Your task to perform on an android device: Search for vegetarian restaurants on Maps Image 0: 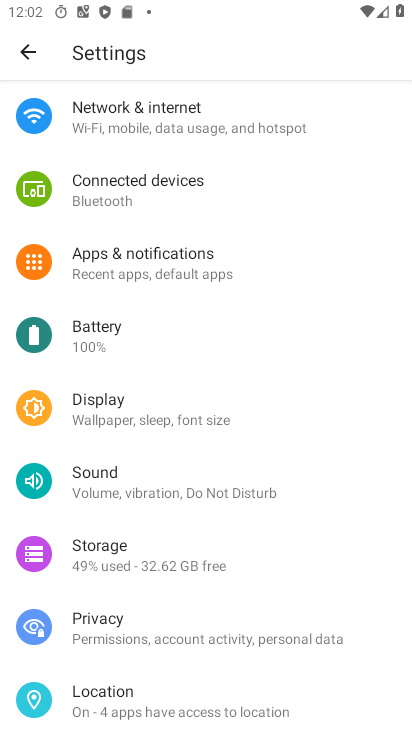
Step 0: press home button
Your task to perform on an android device: Search for vegetarian restaurants on Maps Image 1: 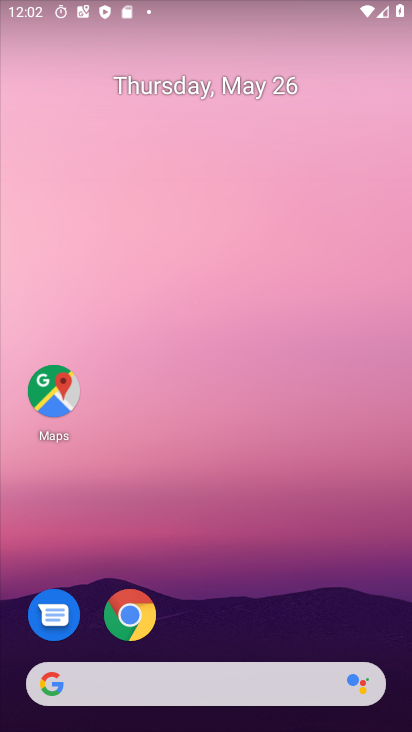
Step 1: click (47, 413)
Your task to perform on an android device: Search for vegetarian restaurants on Maps Image 2: 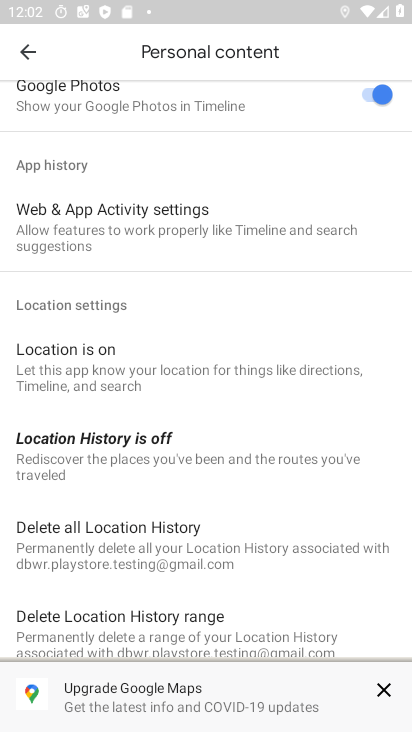
Step 2: click (26, 50)
Your task to perform on an android device: Search for vegetarian restaurants on Maps Image 3: 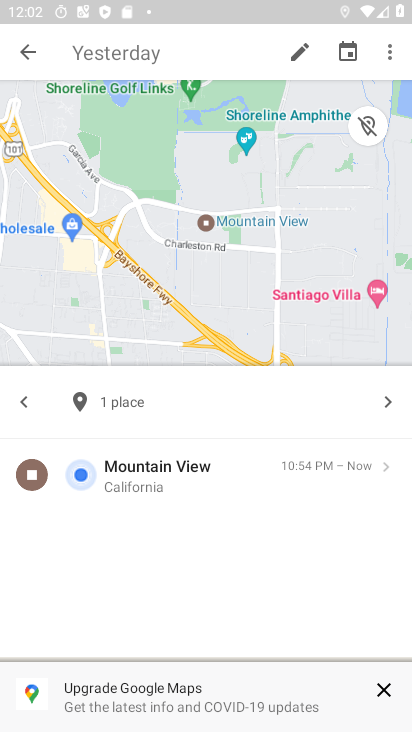
Step 3: click (26, 50)
Your task to perform on an android device: Search for vegetarian restaurants on Maps Image 4: 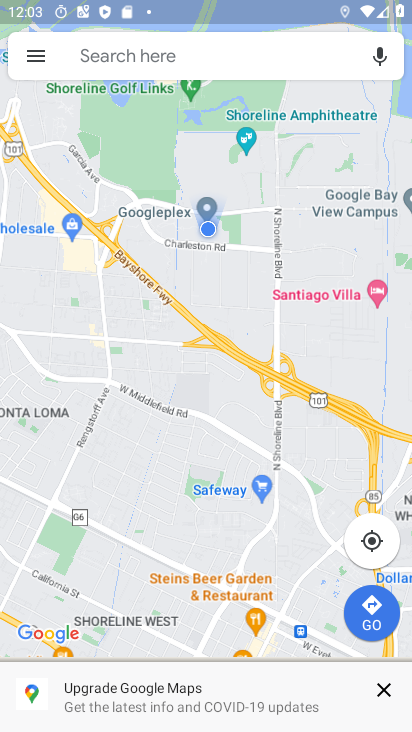
Step 4: click (179, 56)
Your task to perform on an android device: Search for vegetarian restaurants on Maps Image 5: 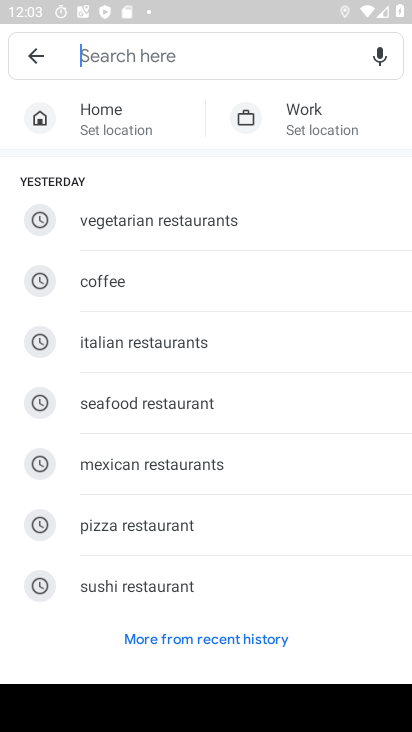
Step 5: click (120, 219)
Your task to perform on an android device: Search for vegetarian restaurants on Maps Image 6: 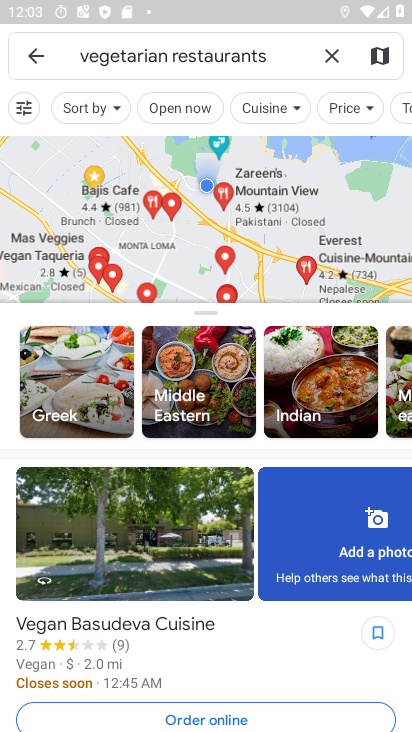
Step 6: task complete